Your task to perform on an android device: turn notification dots off Image 0: 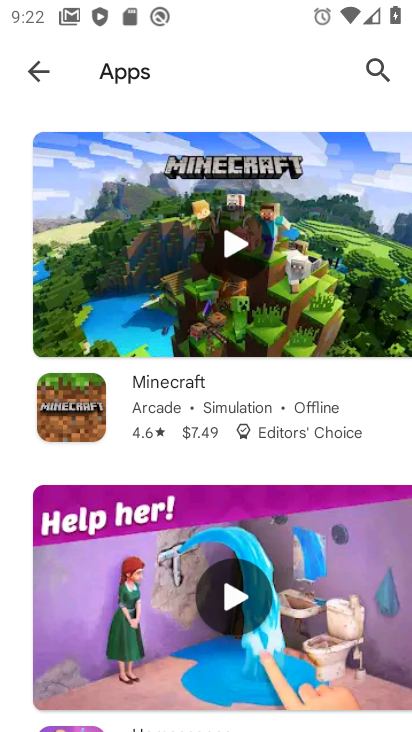
Step 0: press home button
Your task to perform on an android device: turn notification dots off Image 1: 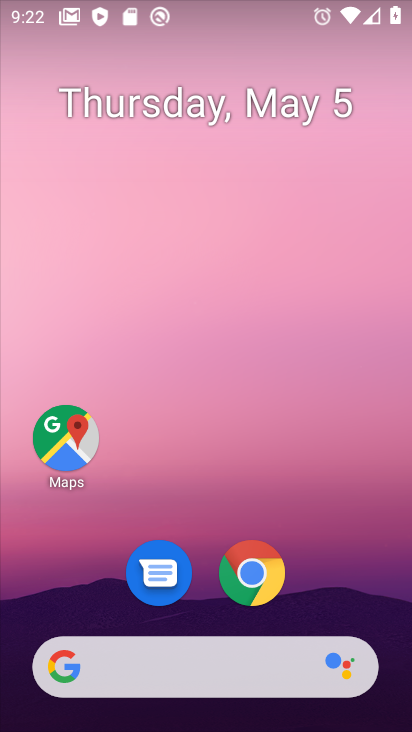
Step 1: drag from (216, 593) to (307, 4)
Your task to perform on an android device: turn notification dots off Image 2: 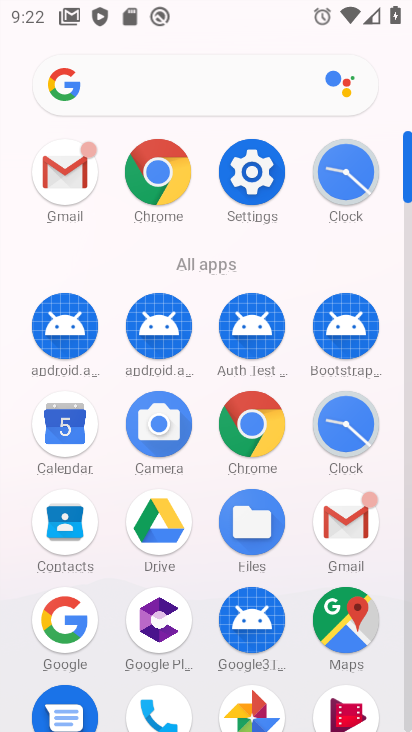
Step 2: click (252, 162)
Your task to perform on an android device: turn notification dots off Image 3: 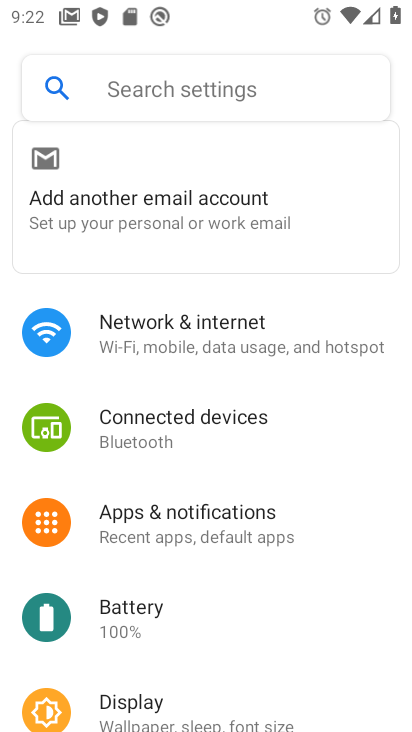
Step 3: click (254, 542)
Your task to perform on an android device: turn notification dots off Image 4: 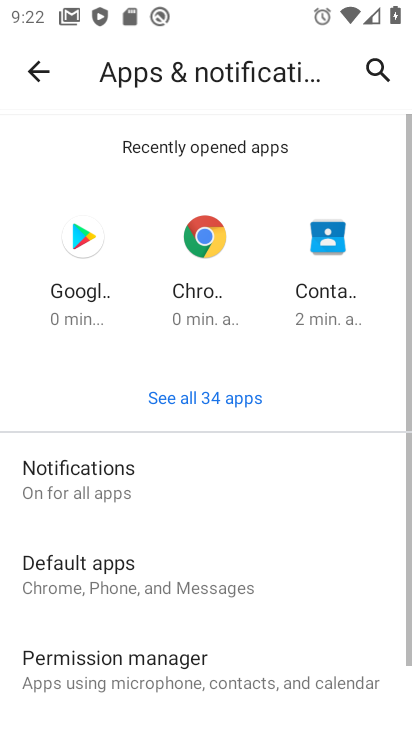
Step 4: drag from (192, 623) to (228, 448)
Your task to perform on an android device: turn notification dots off Image 5: 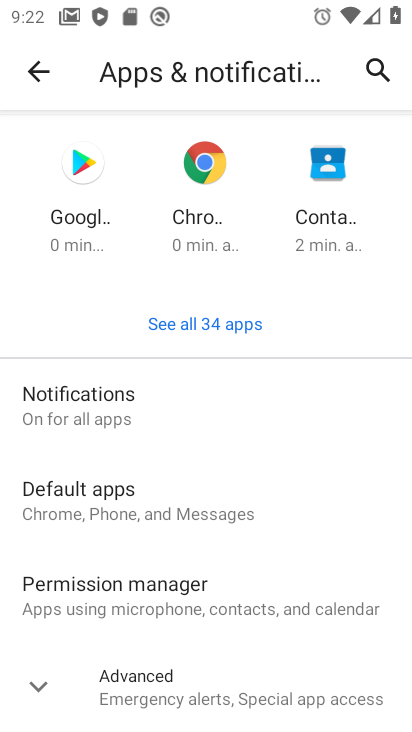
Step 5: click (88, 402)
Your task to perform on an android device: turn notification dots off Image 6: 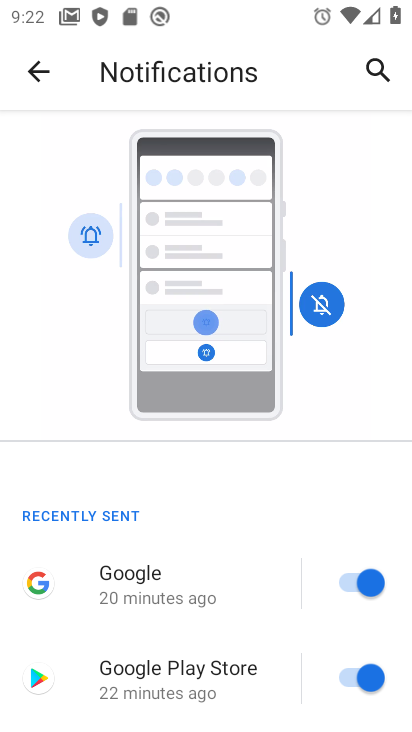
Step 6: drag from (150, 642) to (193, 102)
Your task to perform on an android device: turn notification dots off Image 7: 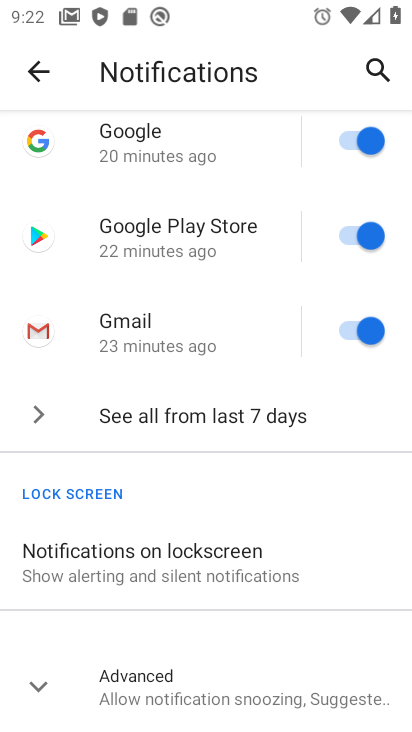
Step 7: drag from (103, 676) to (217, 153)
Your task to perform on an android device: turn notification dots off Image 8: 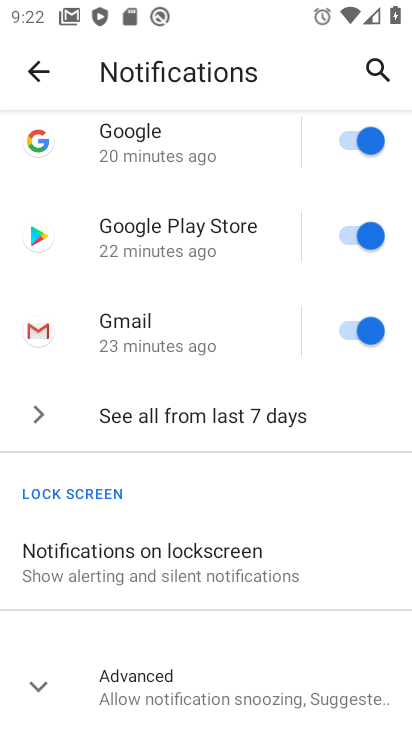
Step 8: click (193, 693)
Your task to perform on an android device: turn notification dots off Image 9: 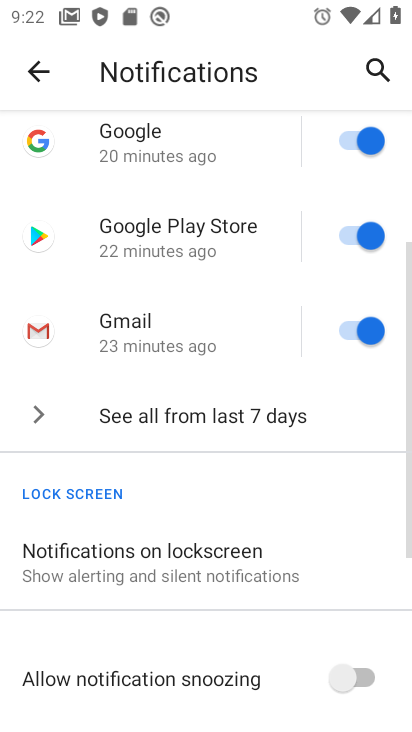
Step 9: drag from (203, 674) to (265, 258)
Your task to perform on an android device: turn notification dots off Image 10: 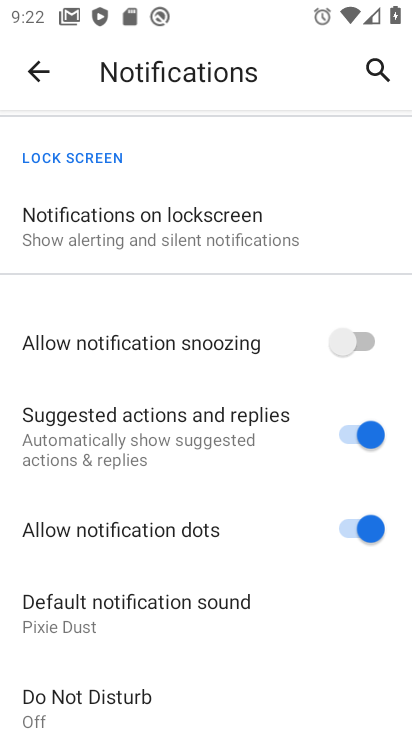
Step 10: click (367, 516)
Your task to perform on an android device: turn notification dots off Image 11: 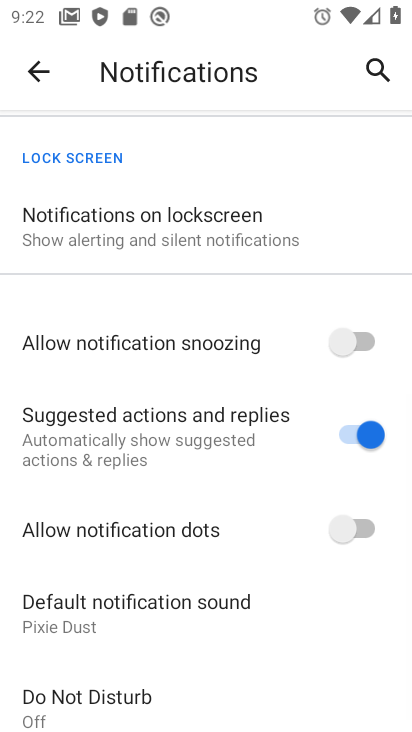
Step 11: task complete